Your task to perform on an android device: Open Android settings Image 0: 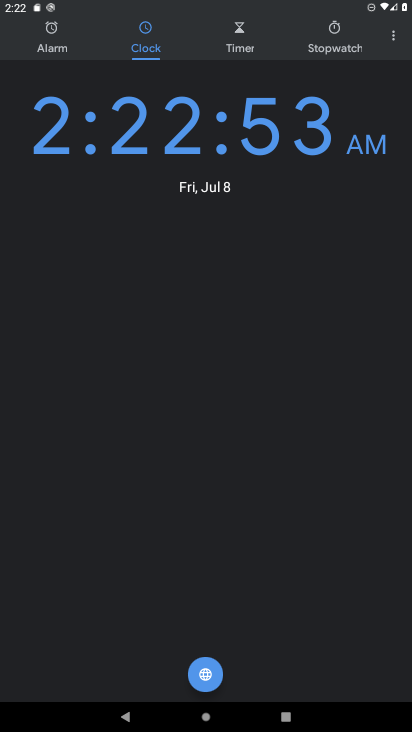
Step 0: press home button
Your task to perform on an android device: Open Android settings Image 1: 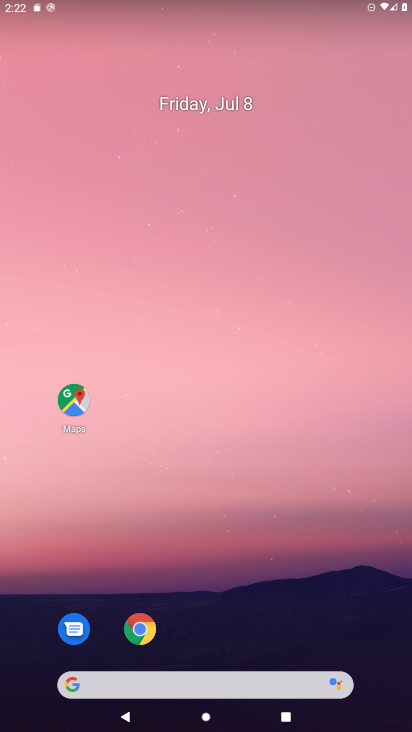
Step 1: drag from (98, 594) to (310, 47)
Your task to perform on an android device: Open Android settings Image 2: 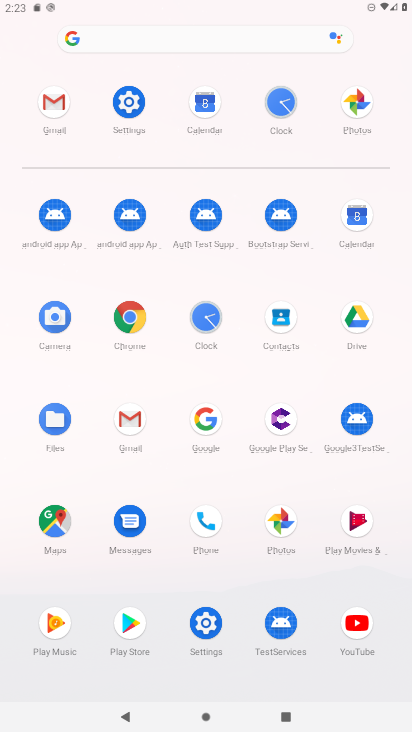
Step 2: click (208, 611)
Your task to perform on an android device: Open Android settings Image 3: 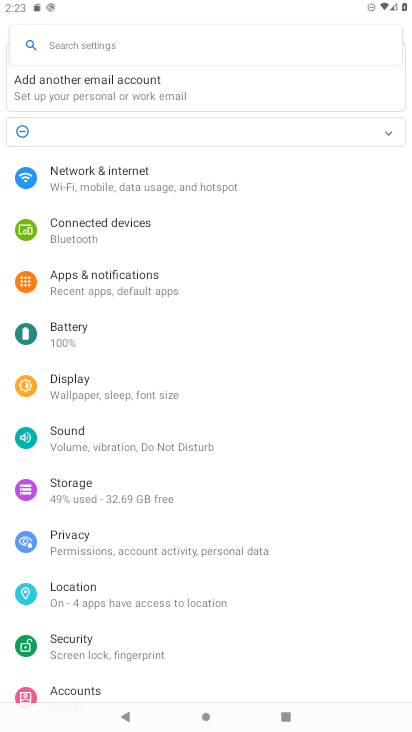
Step 3: drag from (225, 678) to (319, 178)
Your task to perform on an android device: Open Android settings Image 4: 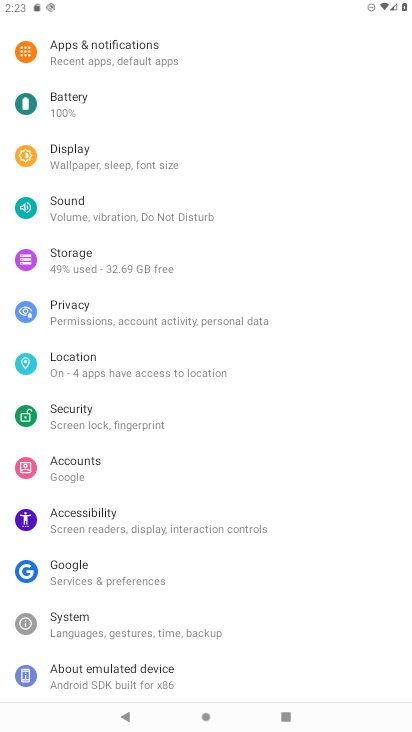
Step 4: click (117, 674)
Your task to perform on an android device: Open Android settings Image 5: 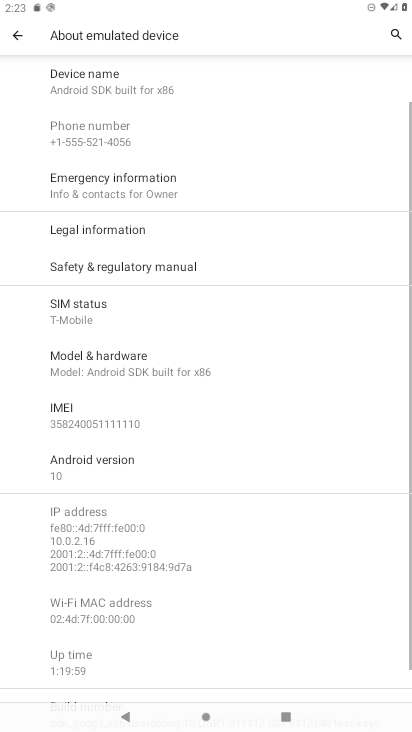
Step 5: task complete